Your task to perform on an android device: turn on notifications settings in the gmail app Image 0: 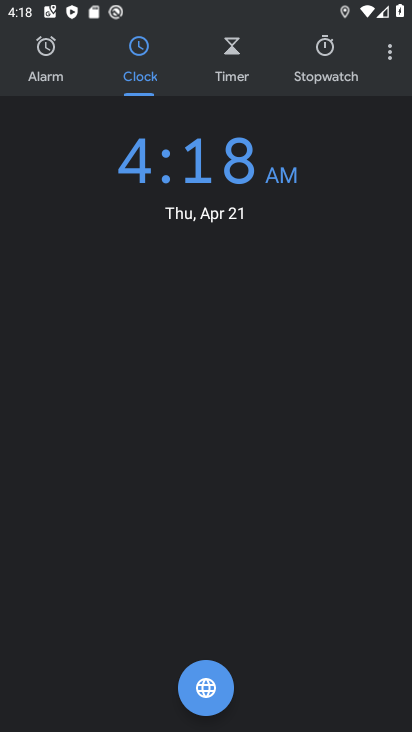
Step 0: press home button
Your task to perform on an android device: turn on notifications settings in the gmail app Image 1: 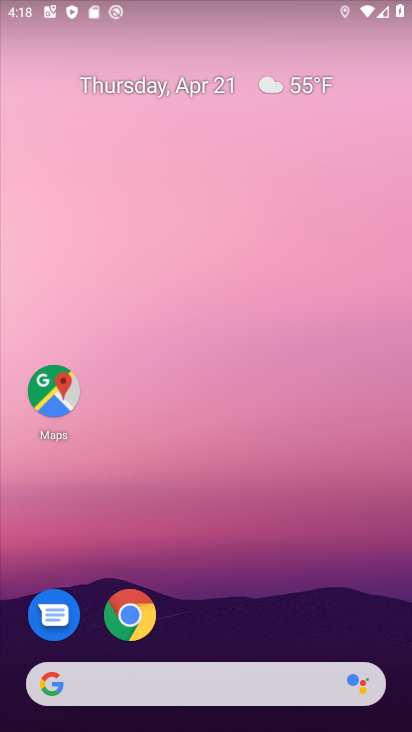
Step 1: drag from (203, 548) to (210, 189)
Your task to perform on an android device: turn on notifications settings in the gmail app Image 2: 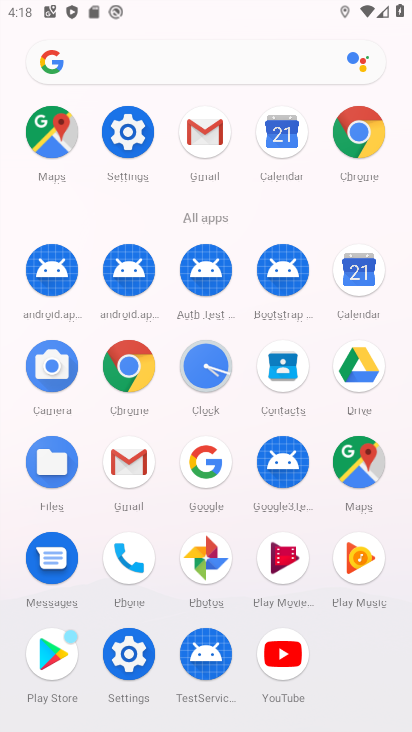
Step 2: click (197, 140)
Your task to perform on an android device: turn on notifications settings in the gmail app Image 3: 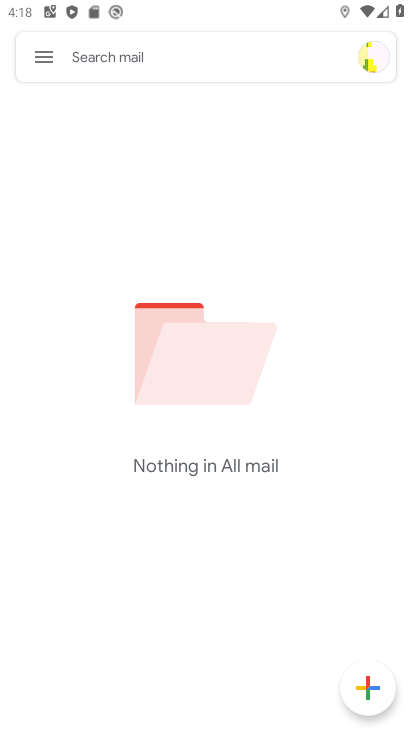
Step 3: click (48, 63)
Your task to perform on an android device: turn on notifications settings in the gmail app Image 4: 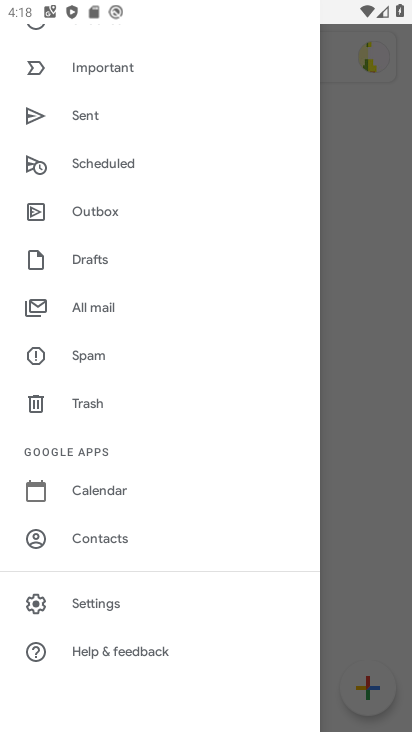
Step 4: click (106, 602)
Your task to perform on an android device: turn on notifications settings in the gmail app Image 5: 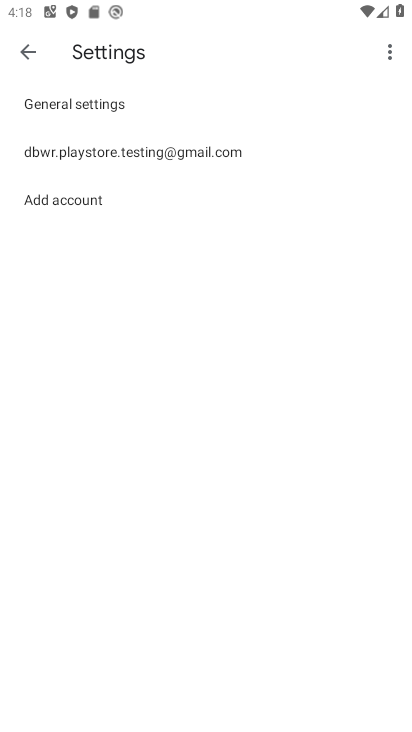
Step 5: click (124, 148)
Your task to perform on an android device: turn on notifications settings in the gmail app Image 6: 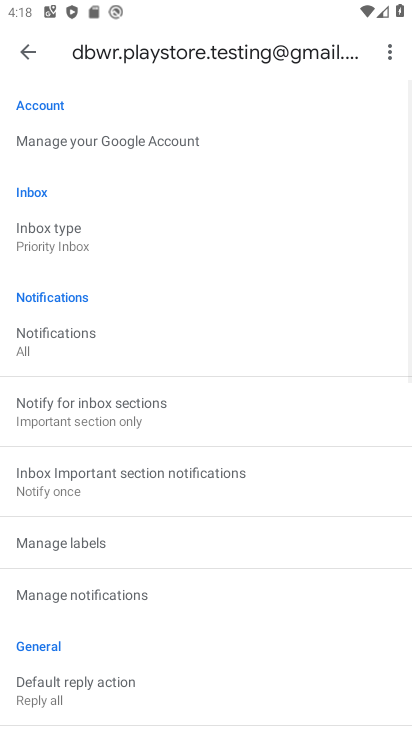
Step 6: drag from (160, 616) to (191, 361)
Your task to perform on an android device: turn on notifications settings in the gmail app Image 7: 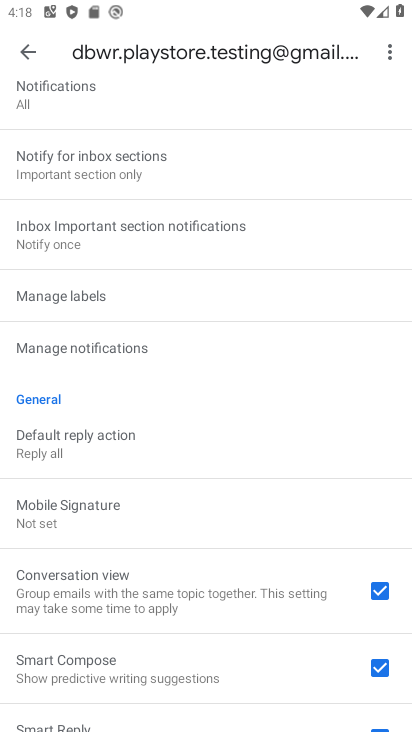
Step 7: click (144, 361)
Your task to perform on an android device: turn on notifications settings in the gmail app Image 8: 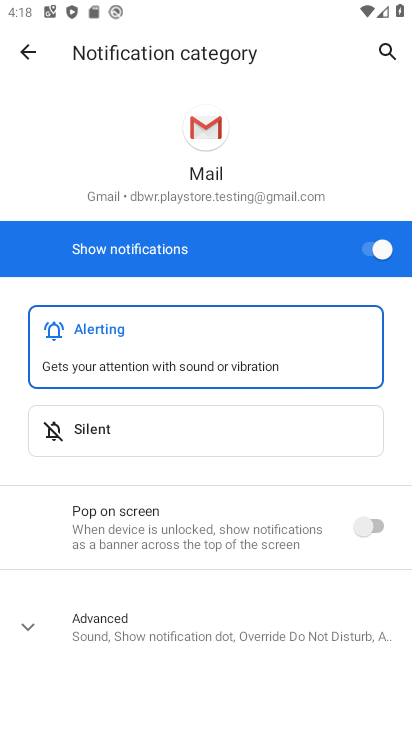
Step 8: task complete